Your task to perform on an android device: Go to Wikipedia Image 0: 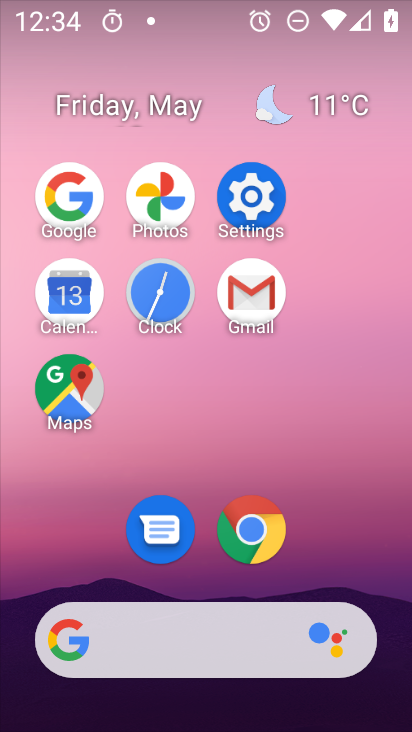
Step 0: click (250, 526)
Your task to perform on an android device: Go to Wikipedia Image 1: 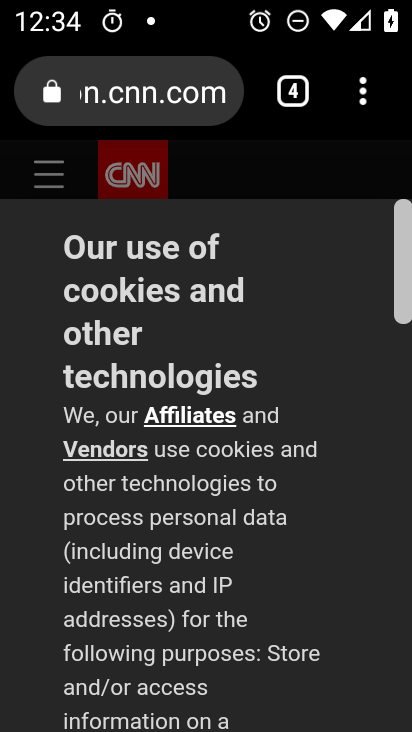
Step 1: click (304, 103)
Your task to perform on an android device: Go to Wikipedia Image 2: 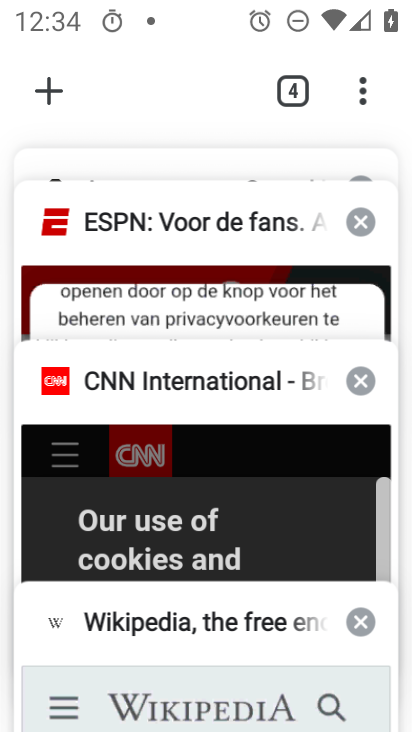
Step 2: drag from (142, 201) to (141, 479)
Your task to perform on an android device: Go to Wikipedia Image 3: 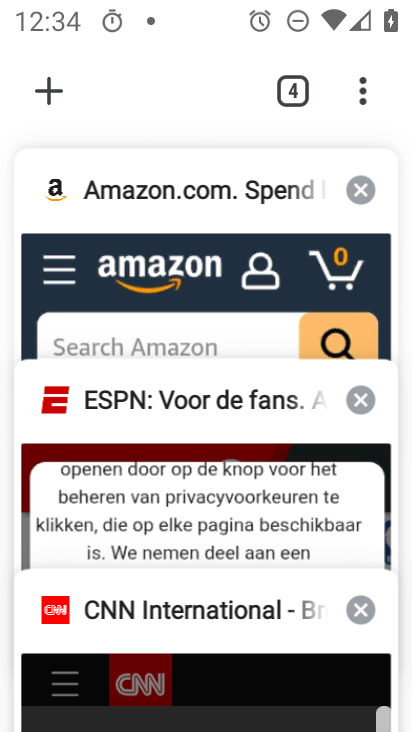
Step 3: drag from (194, 235) to (206, 134)
Your task to perform on an android device: Go to Wikipedia Image 4: 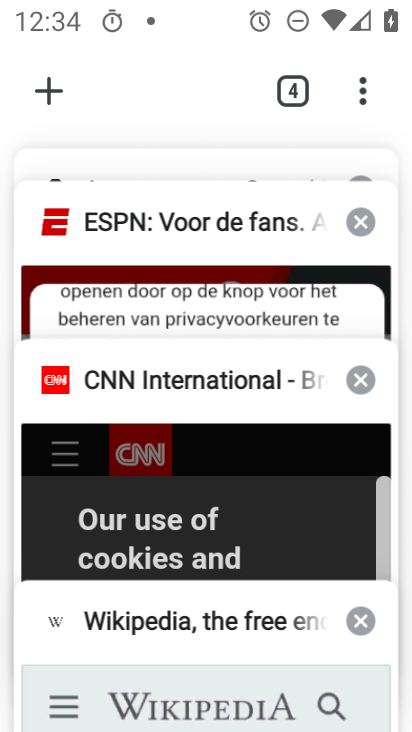
Step 4: click (187, 622)
Your task to perform on an android device: Go to Wikipedia Image 5: 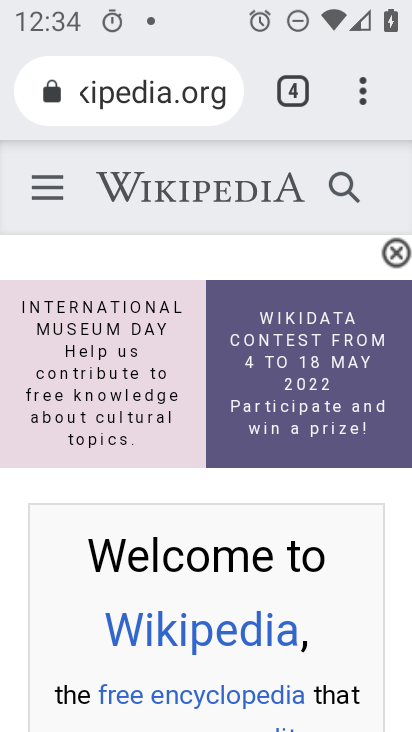
Step 5: task complete